Your task to perform on an android device: add a label to a message in the gmail app Image 0: 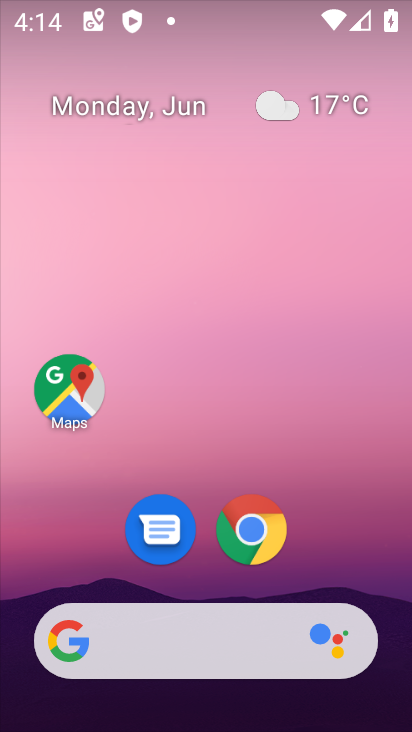
Step 0: drag from (351, 472) to (223, 18)
Your task to perform on an android device: add a label to a message in the gmail app Image 1: 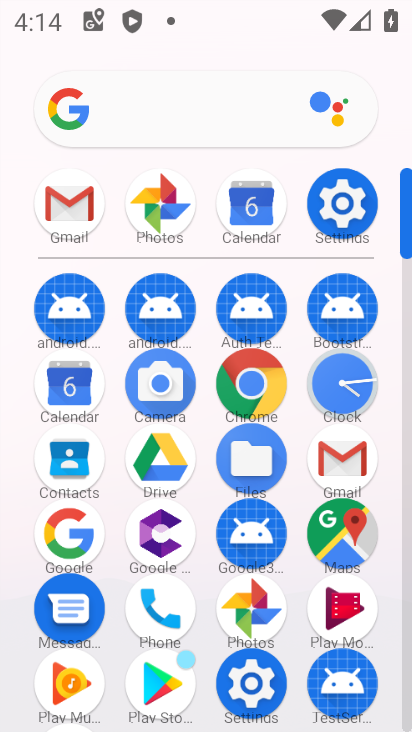
Step 1: click (341, 457)
Your task to perform on an android device: add a label to a message in the gmail app Image 2: 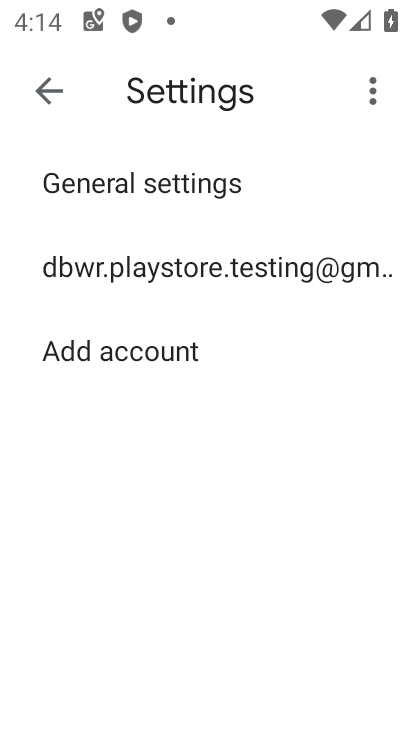
Step 2: press back button
Your task to perform on an android device: add a label to a message in the gmail app Image 3: 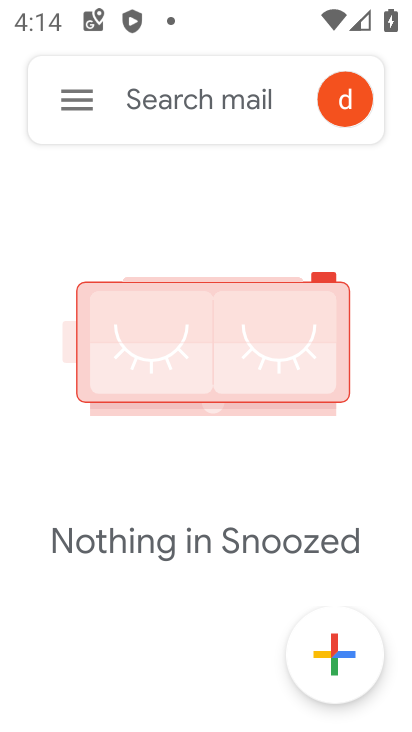
Step 3: click (80, 101)
Your task to perform on an android device: add a label to a message in the gmail app Image 4: 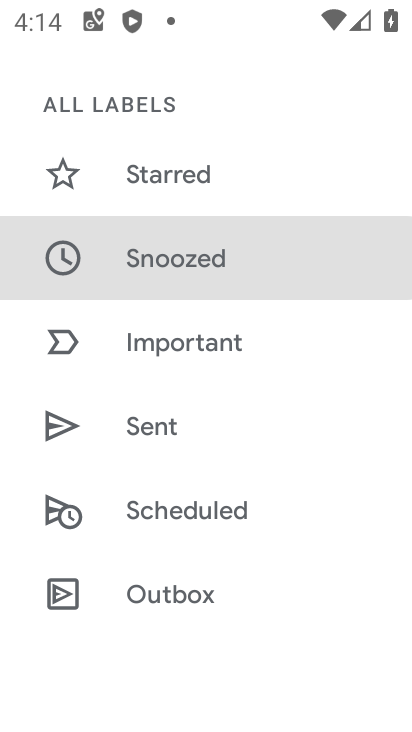
Step 4: drag from (203, 206) to (241, 439)
Your task to perform on an android device: add a label to a message in the gmail app Image 5: 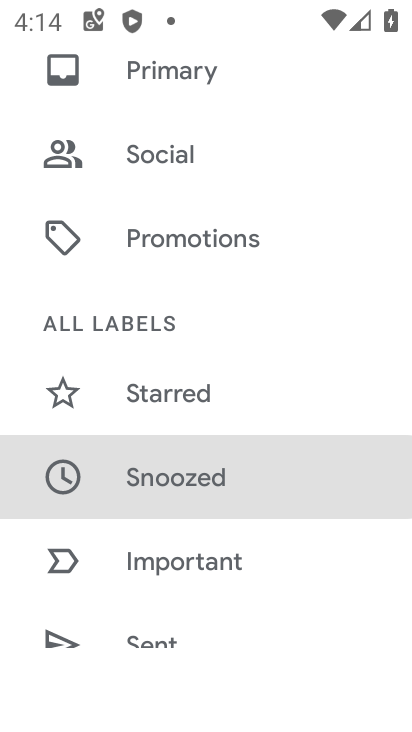
Step 5: click (180, 50)
Your task to perform on an android device: add a label to a message in the gmail app Image 6: 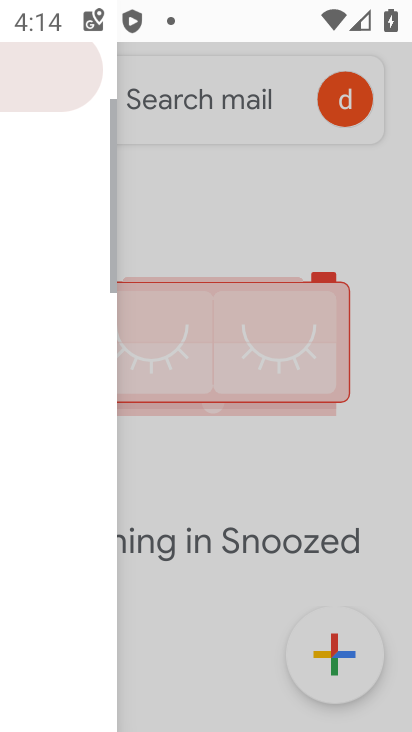
Step 6: click (175, 69)
Your task to perform on an android device: add a label to a message in the gmail app Image 7: 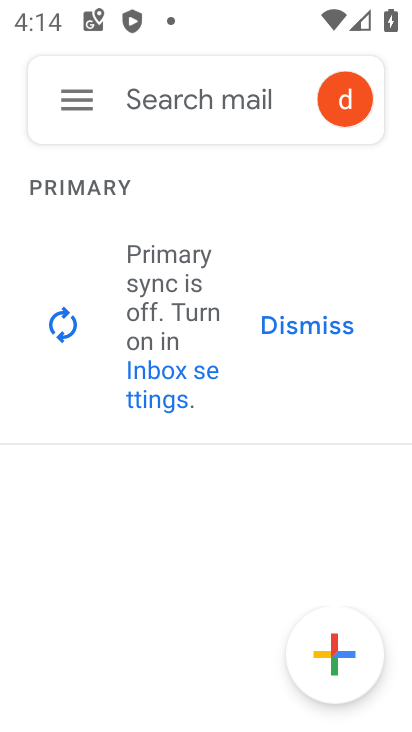
Step 7: task complete